Your task to perform on an android device: Do I have any events today? Image 0: 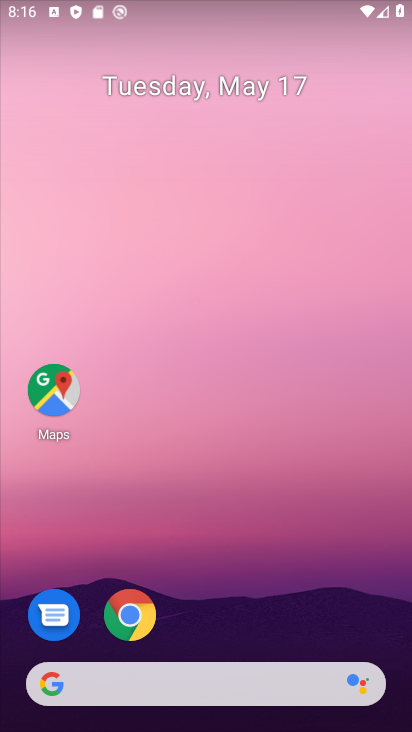
Step 0: drag from (388, 636) to (325, 100)
Your task to perform on an android device: Do I have any events today? Image 1: 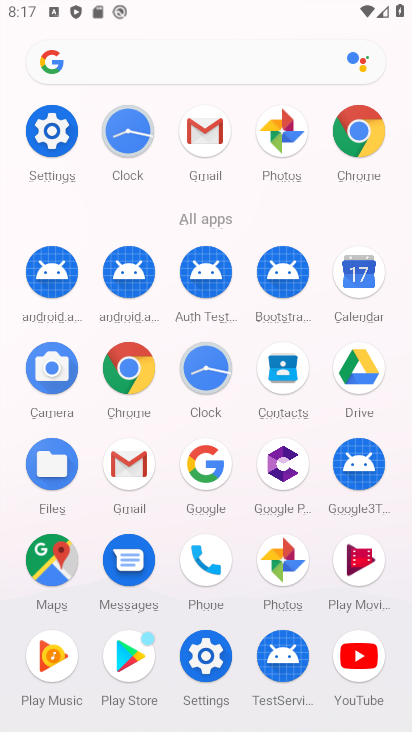
Step 1: click (351, 274)
Your task to perform on an android device: Do I have any events today? Image 2: 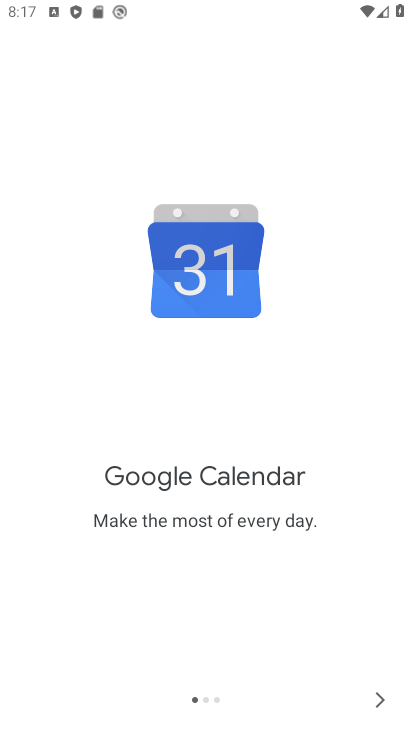
Step 2: click (374, 692)
Your task to perform on an android device: Do I have any events today? Image 3: 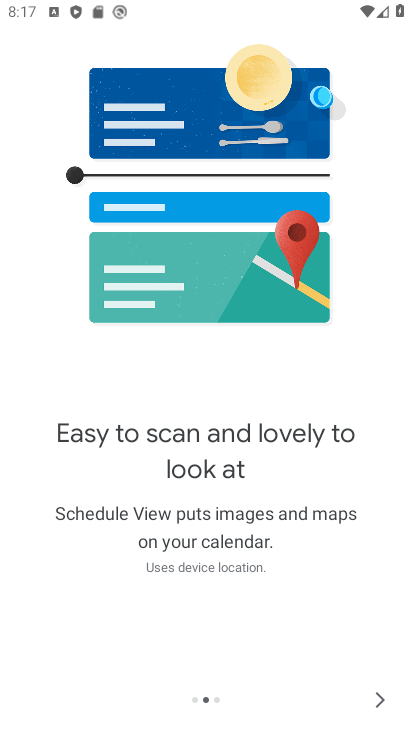
Step 3: click (374, 692)
Your task to perform on an android device: Do I have any events today? Image 4: 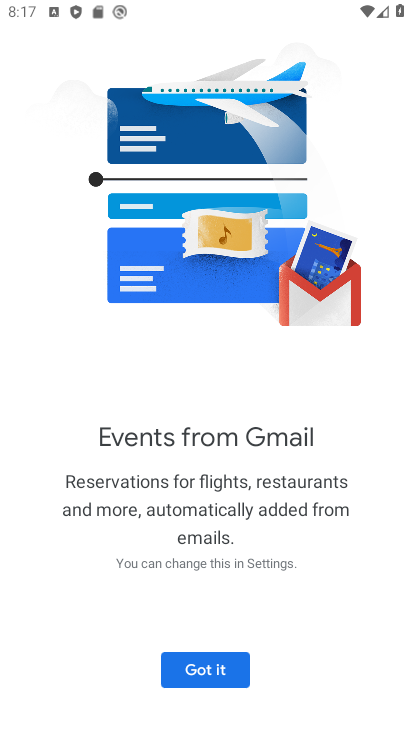
Step 4: click (212, 667)
Your task to perform on an android device: Do I have any events today? Image 5: 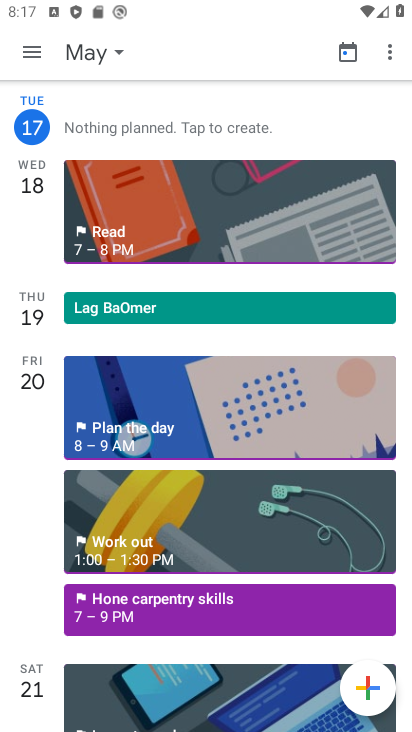
Step 5: click (28, 52)
Your task to perform on an android device: Do I have any events today? Image 6: 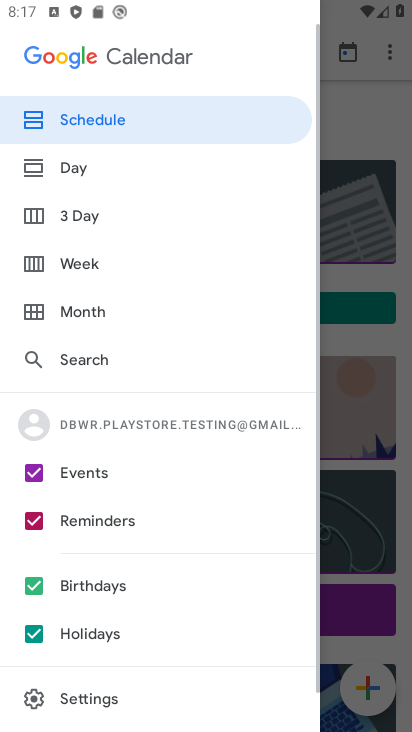
Step 6: click (73, 168)
Your task to perform on an android device: Do I have any events today? Image 7: 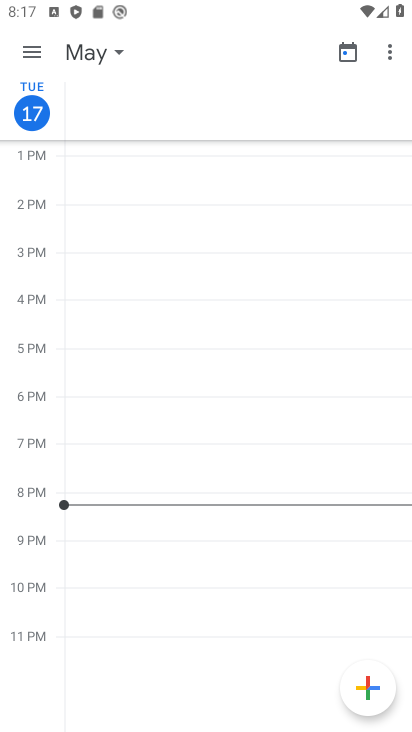
Step 7: click (110, 48)
Your task to perform on an android device: Do I have any events today? Image 8: 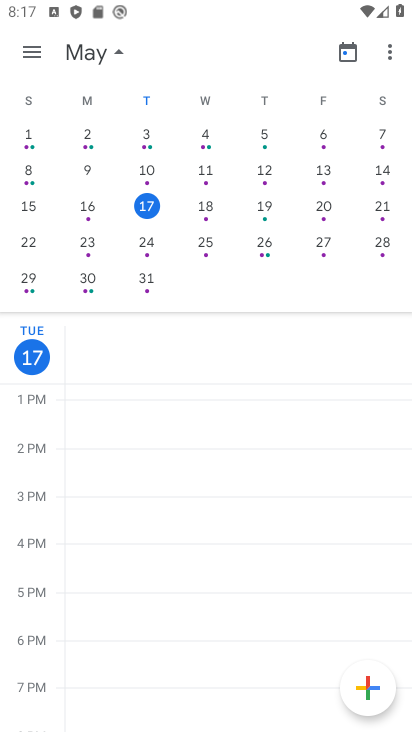
Step 8: drag from (98, 551) to (137, 244)
Your task to perform on an android device: Do I have any events today? Image 9: 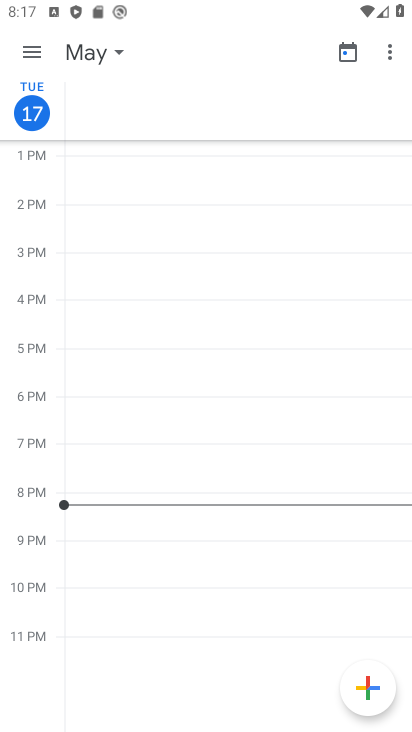
Step 9: click (176, 612)
Your task to perform on an android device: Do I have any events today? Image 10: 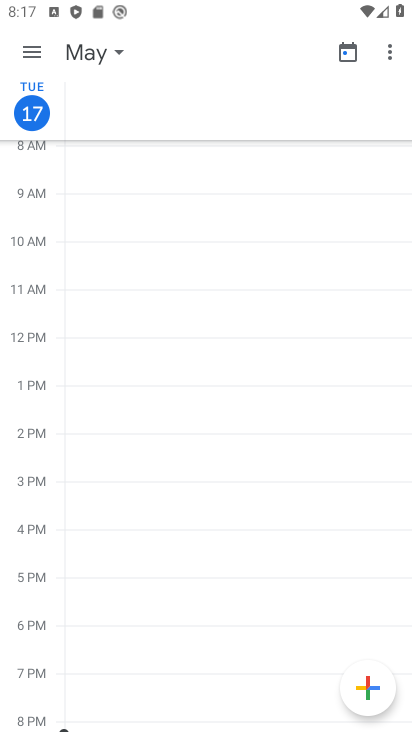
Step 10: task complete